Your task to perform on an android device: see tabs open on other devices in the chrome app Image 0: 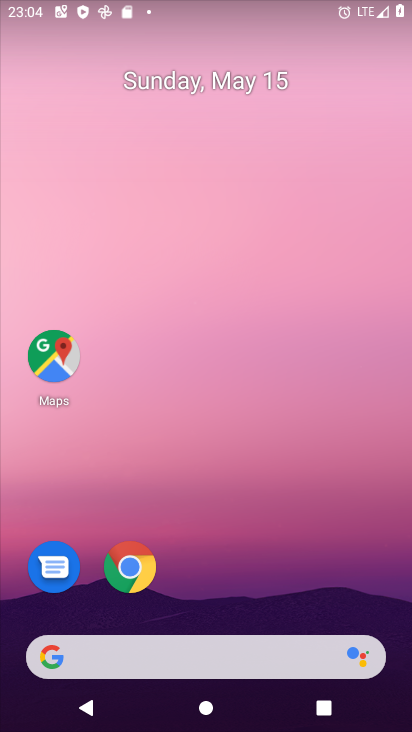
Step 0: click (141, 563)
Your task to perform on an android device: see tabs open on other devices in the chrome app Image 1: 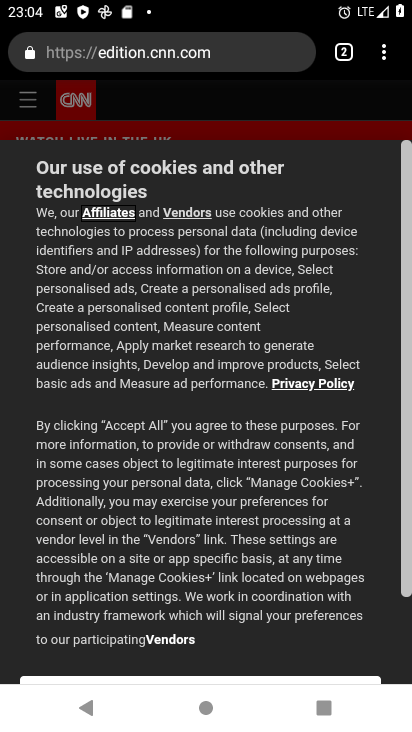
Step 1: click (382, 44)
Your task to perform on an android device: see tabs open on other devices in the chrome app Image 2: 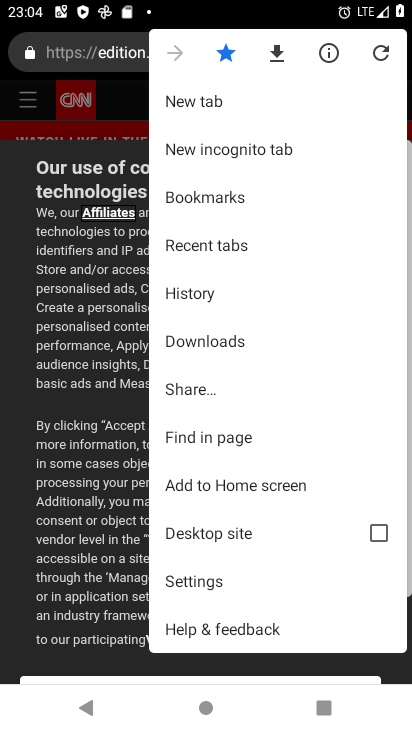
Step 2: click (197, 248)
Your task to perform on an android device: see tabs open on other devices in the chrome app Image 3: 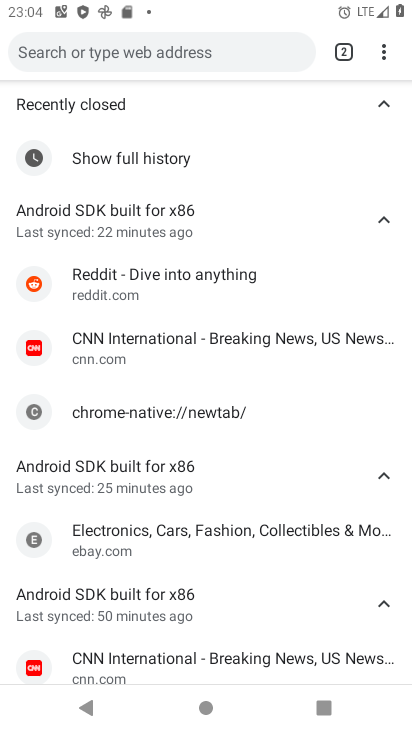
Step 3: task complete